Your task to perform on an android device: see tabs open on other devices in the chrome app Image 0: 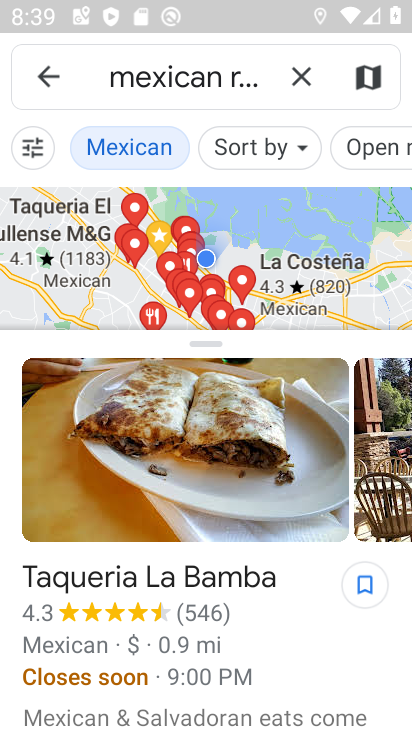
Step 0: press home button
Your task to perform on an android device: see tabs open on other devices in the chrome app Image 1: 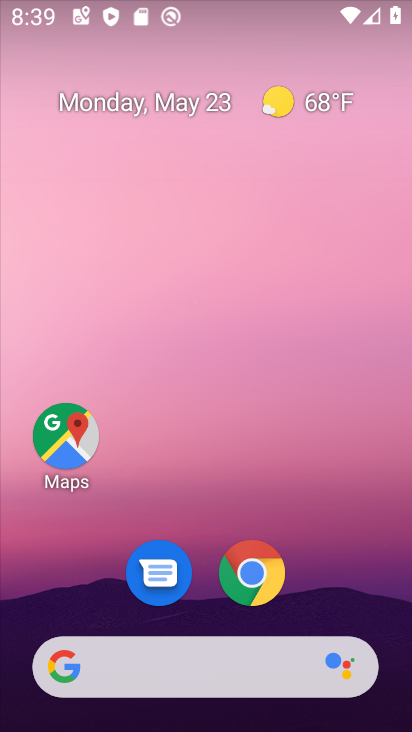
Step 1: drag from (201, 671) to (337, 140)
Your task to perform on an android device: see tabs open on other devices in the chrome app Image 2: 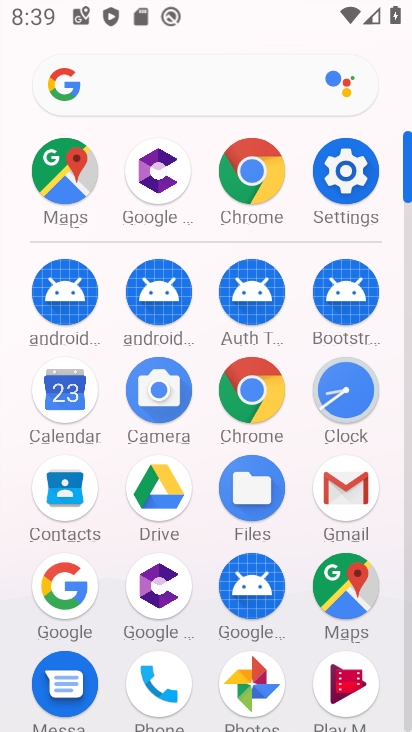
Step 2: click (266, 182)
Your task to perform on an android device: see tabs open on other devices in the chrome app Image 3: 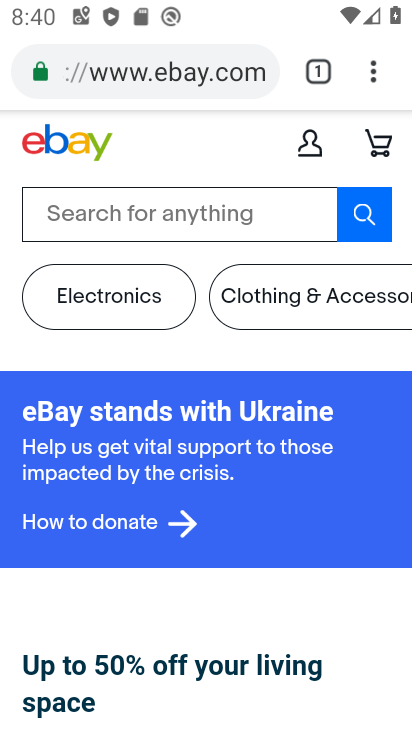
Step 3: task complete